Your task to perform on an android device: read, delete, or share a saved page in the chrome app Image 0: 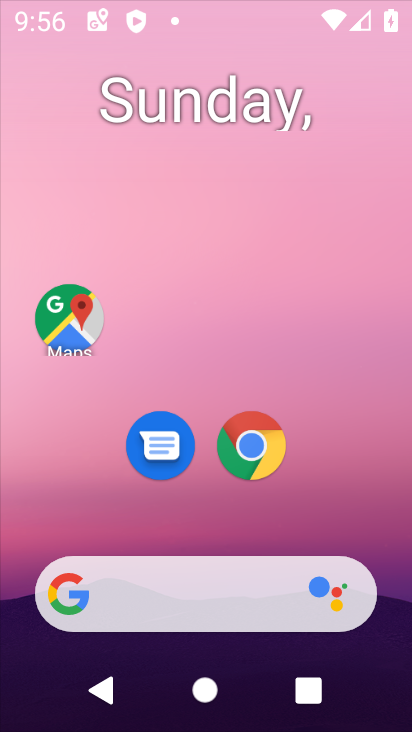
Step 0: press home button
Your task to perform on an android device: read, delete, or share a saved page in the chrome app Image 1: 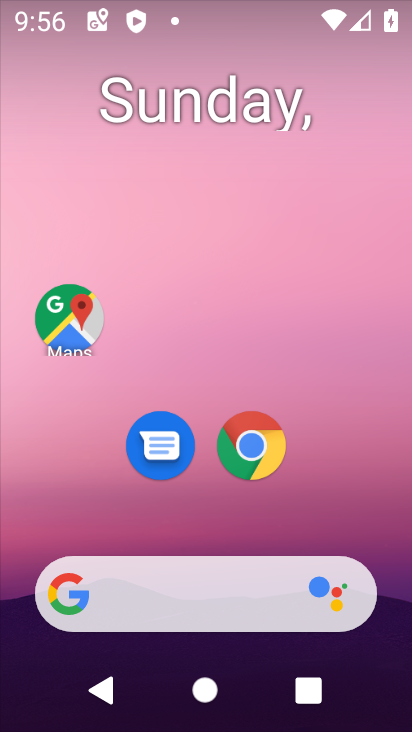
Step 1: click (233, 441)
Your task to perform on an android device: read, delete, or share a saved page in the chrome app Image 2: 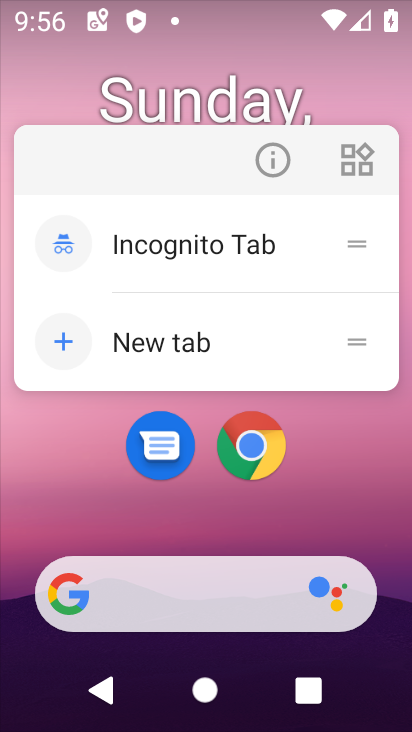
Step 2: click (233, 441)
Your task to perform on an android device: read, delete, or share a saved page in the chrome app Image 3: 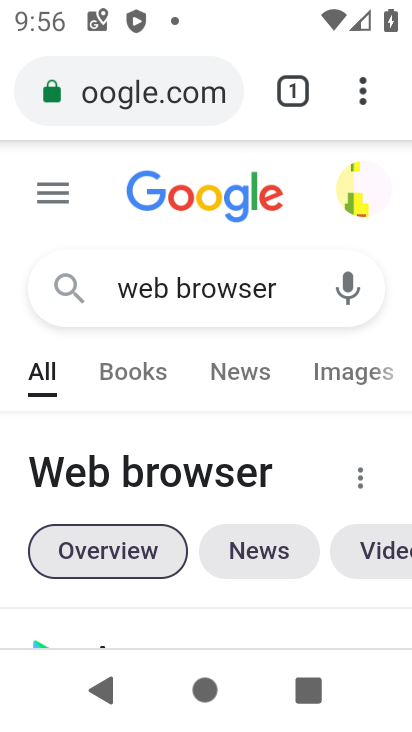
Step 3: task complete